Your task to perform on an android device: Open Google Chrome and click the shortcut for Amazon.com Image 0: 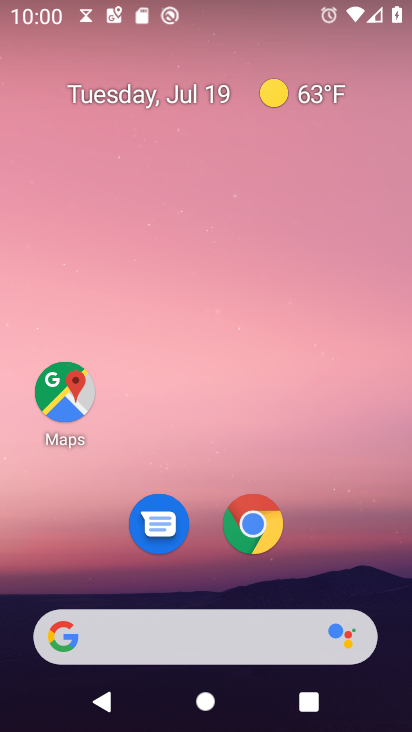
Step 0: click (257, 523)
Your task to perform on an android device: Open Google Chrome and click the shortcut for Amazon.com Image 1: 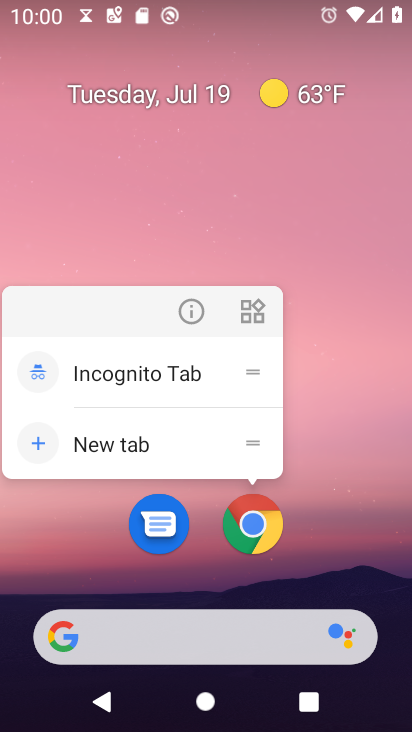
Step 1: click (254, 520)
Your task to perform on an android device: Open Google Chrome and click the shortcut for Amazon.com Image 2: 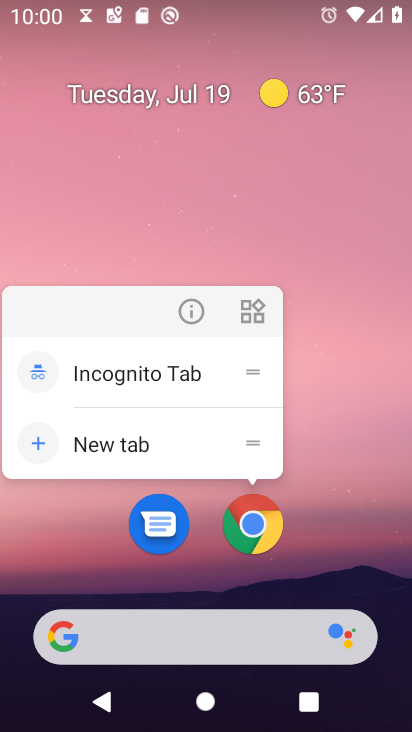
Step 2: click (251, 527)
Your task to perform on an android device: Open Google Chrome and click the shortcut for Amazon.com Image 3: 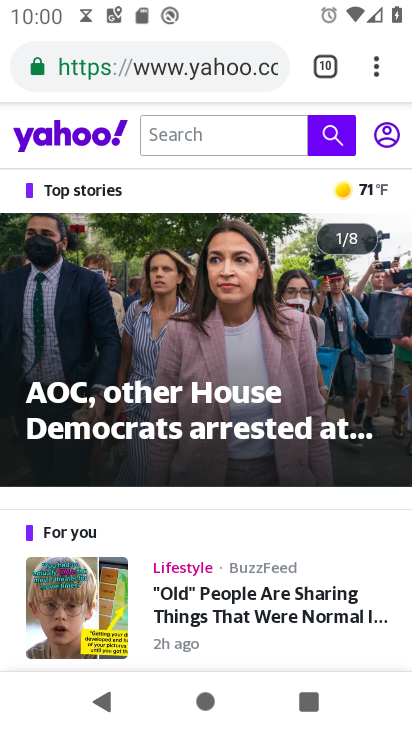
Step 3: drag from (373, 77) to (193, 139)
Your task to perform on an android device: Open Google Chrome and click the shortcut for Amazon.com Image 4: 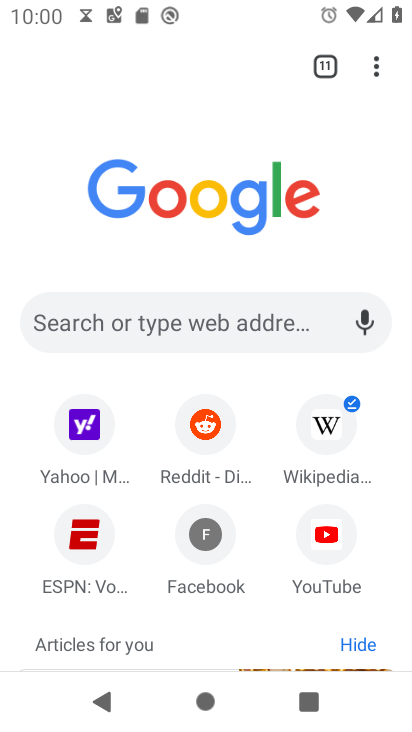
Step 4: drag from (206, 609) to (260, 352)
Your task to perform on an android device: Open Google Chrome and click the shortcut for Amazon.com Image 5: 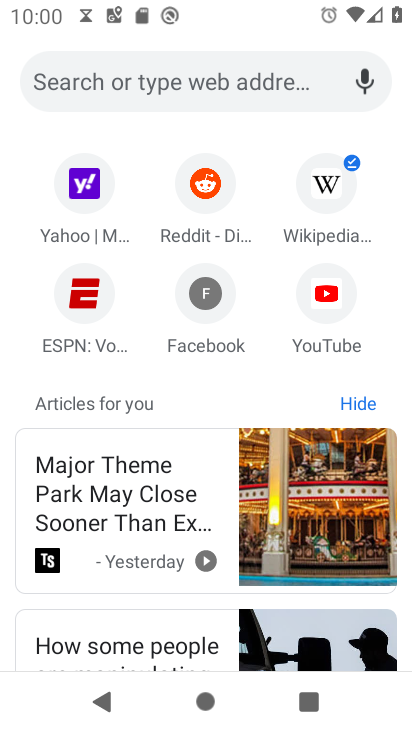
Step 5: click (129, 72)
Your task to perform on an android device: Open Google Chrome and click the shortcut for Amazon.com Image 6: 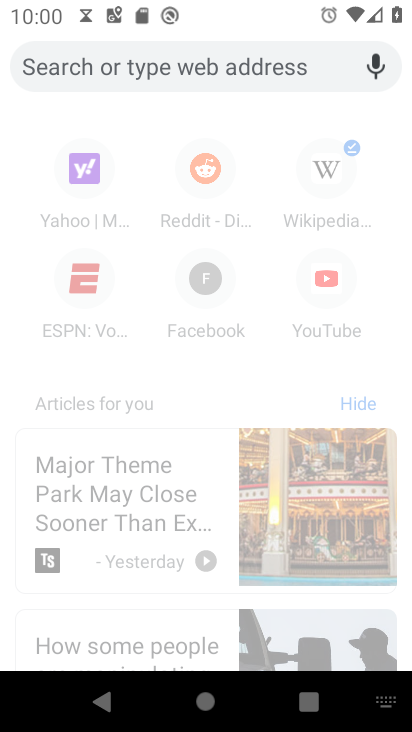
Step 6: type "amazon.com"
Your task to perform on an android device: Open Google Chrome and click the shortcut for Amazon.com Image 7: 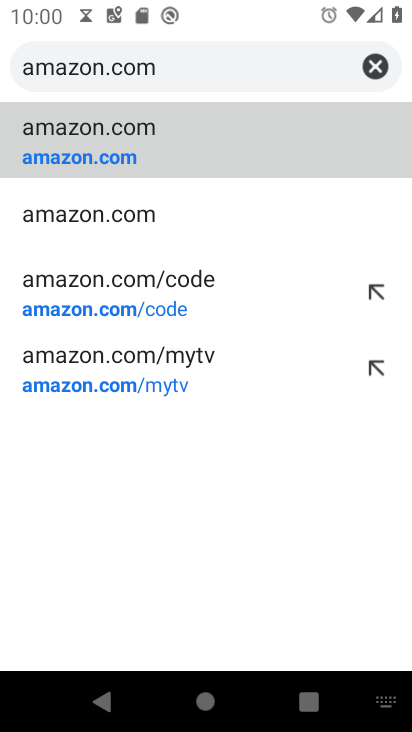
Step 7: click (151, 157)
Your task to perform on an android device: Open Google Chrome and click the shortcut for Amazon.com Image 8: 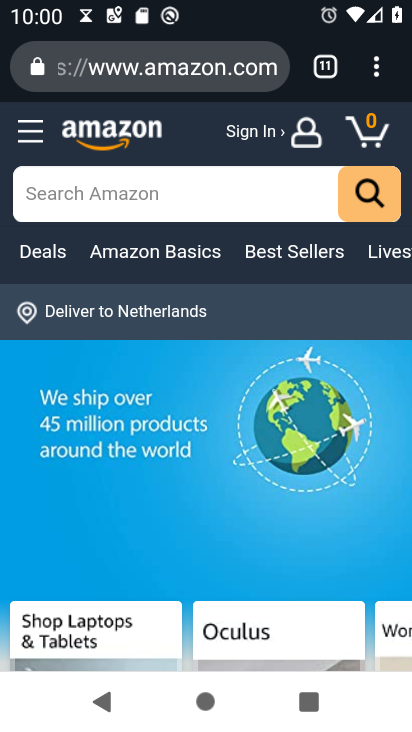
Step 8: task complete